Your task to perform on an android device: check battery use Image 0: 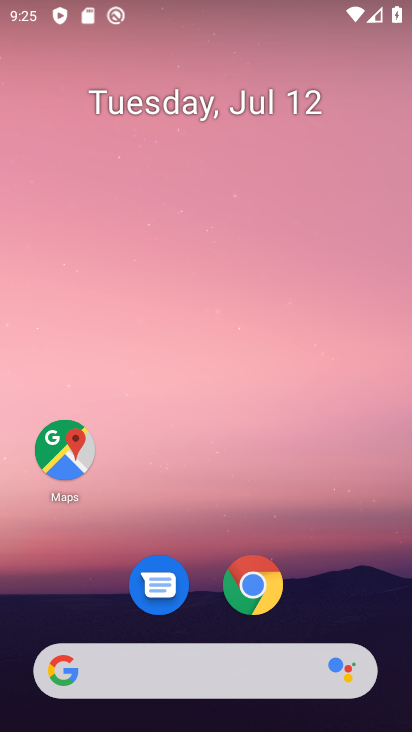
Step 0: drag from (201, 656) to (339, 109)
Your task to perform on an android device: check battery use Image 1: 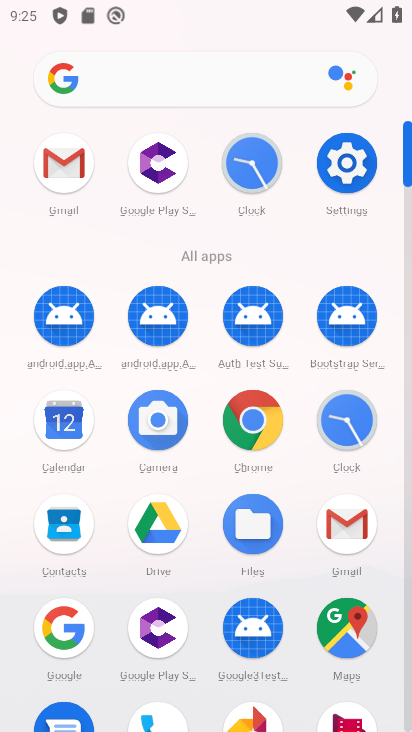
Step 1: click (344, 163)
Your task to perform on an android device: check battery use Image 2: 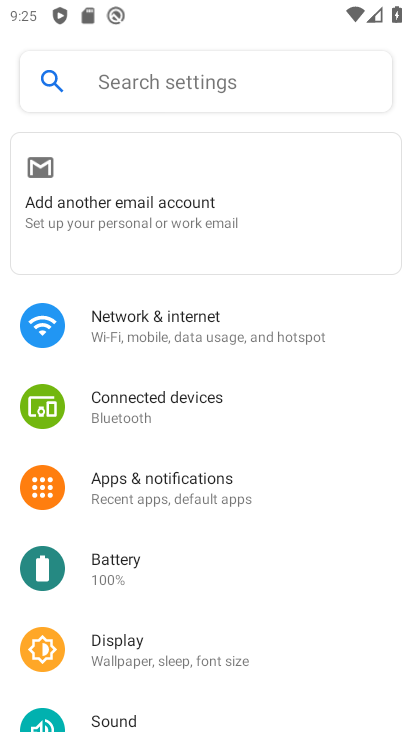
Step 2: click (109, 572)
Your task to perform on an android device: check battery use Image 3: 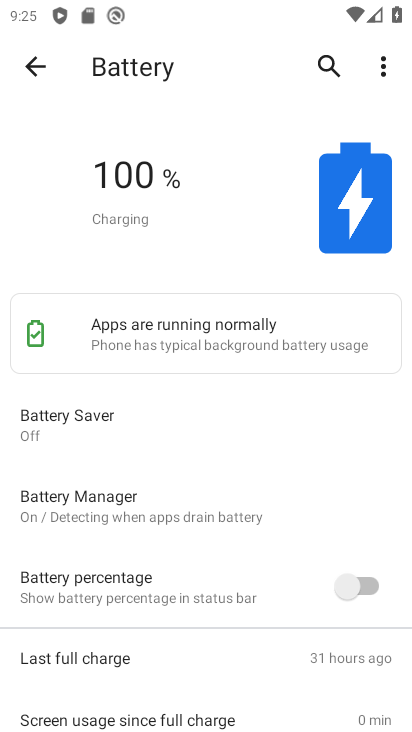
Step 3: click (382, 64)
Your task to perform on an android device: check battery use Image 4: 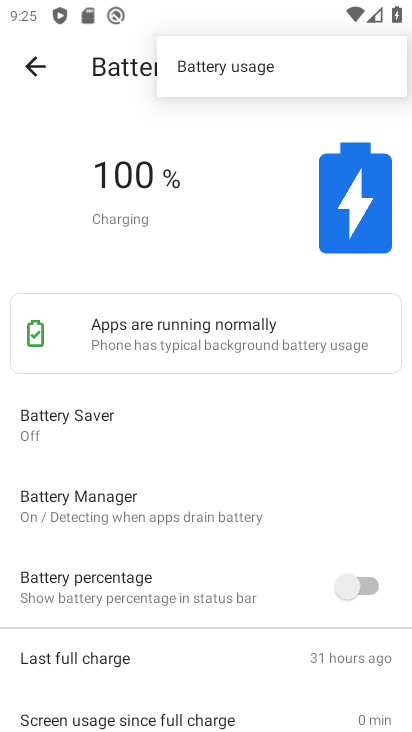
Step 4: click (266, 66)
Your task to perform on an android device: check battery use Image 5: 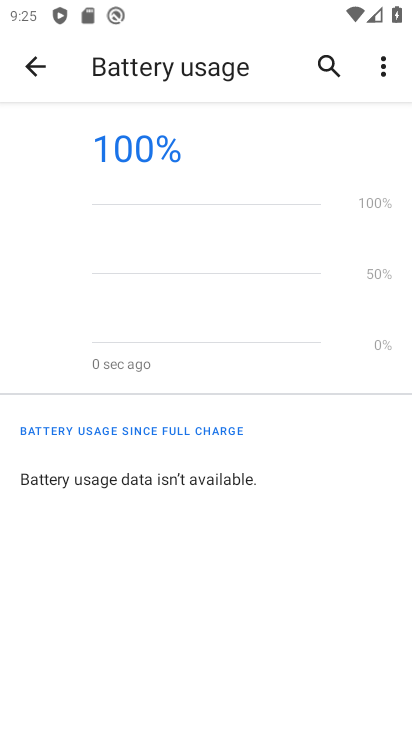
Step 5: task complete